Your task to perform on an android device: choose inbox layout in the gmail app Image 0: 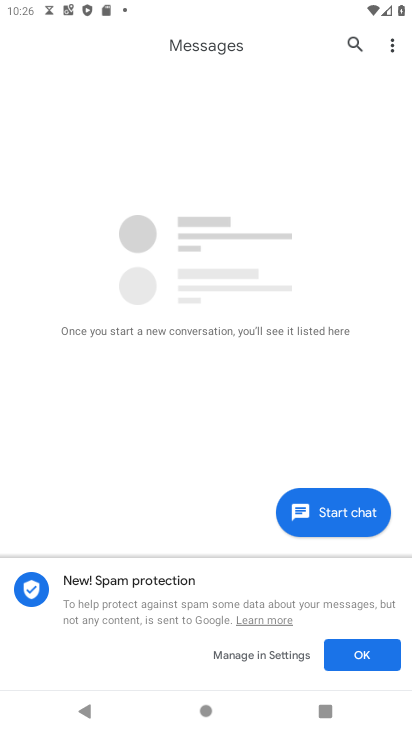
Step 0: press home button
Your task to perform on an android device: choose inbox layout in the gmail app Image 1: 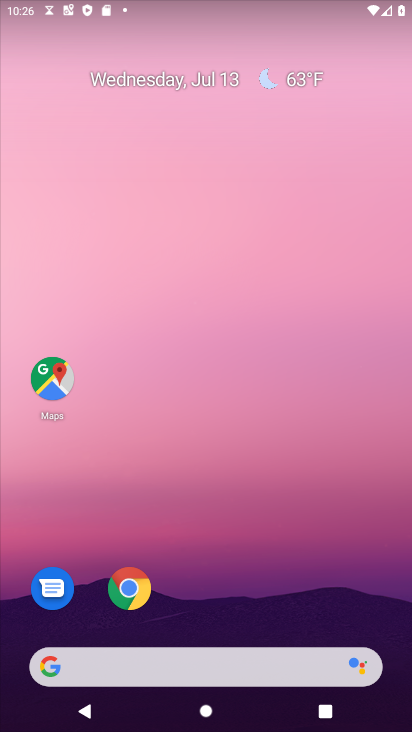
Step 1: drag from (4, 569) to (328, 112)
Your task to perform on an android device: choose inbox layout in the gmail app Image 2: 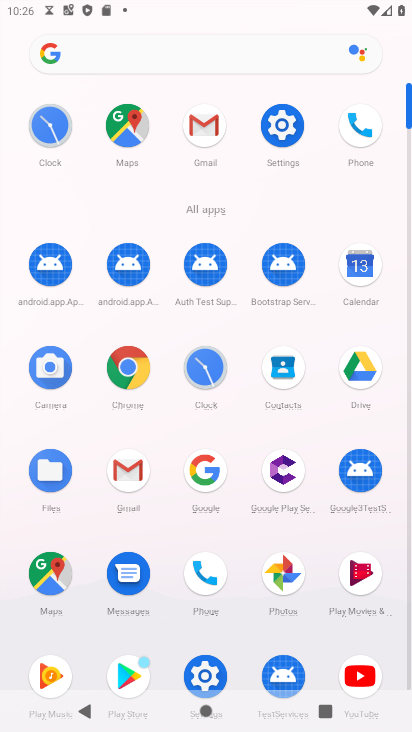
Step 2: click (203, 129)
Your task to perform on an android device: choose inbox layout in the gmail app Image 3: 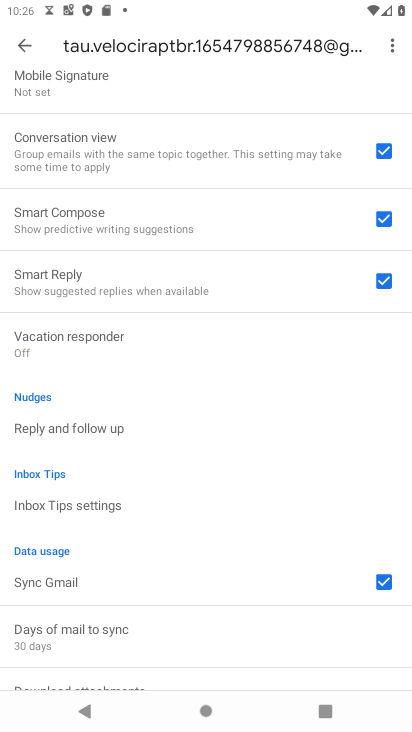
Step 3: press home button
Your task to perform on an android device: choose inbox layout in the gmail app Image 4: 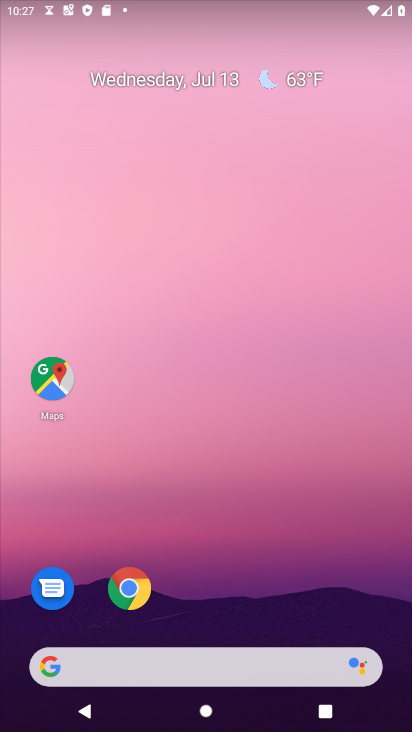
Step 4: drag from (48, 488) to (167, 101)
Your task to perform on an android device: choose inbox layout in the gmail app Image 5: 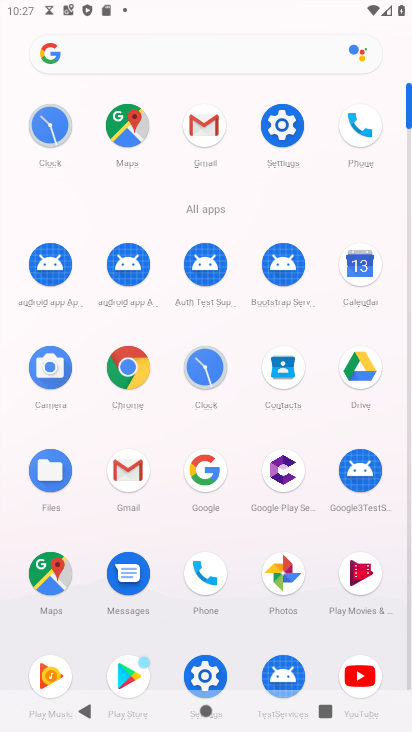
Step 5: click (197, 115)
Your task to perform on an android device: choose inbox layout in the gmail app Image 6: 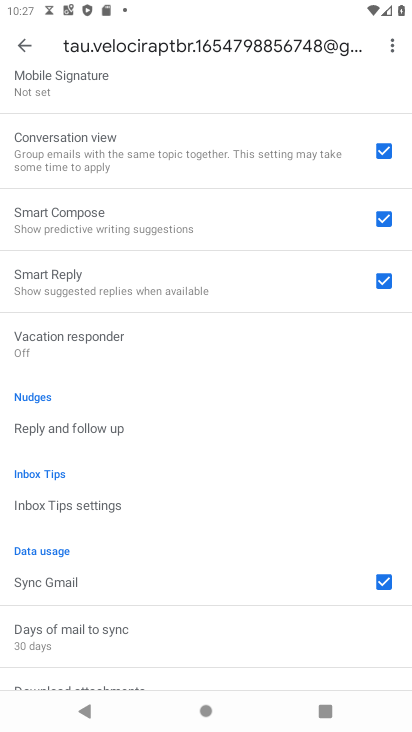
Step 6: task complete